Your task to perform on an android device: Open Google Chrome and click the shortcut for Amazon.com Image 0: 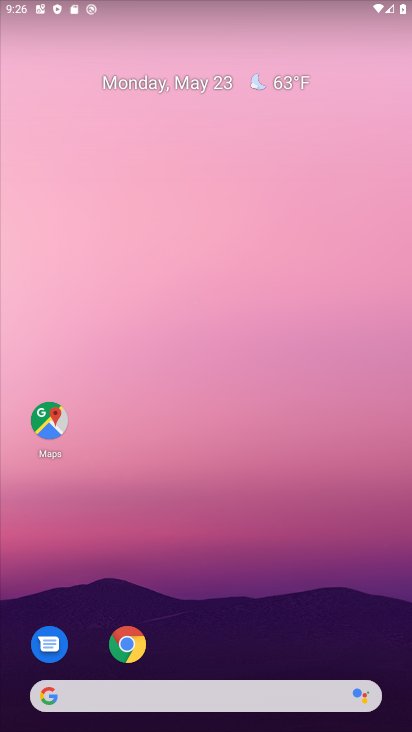
Step 0: click (125, 640)
Your task to perform on an android device: Open Google Chrome and click the shortcut for Amazon.com Image 1: 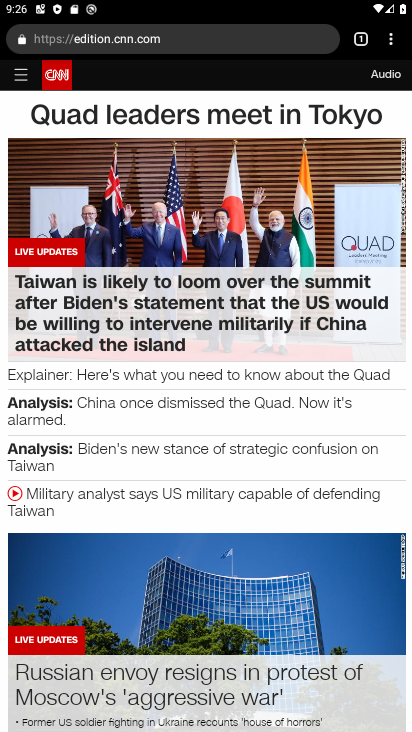
Step 1: click (358, 31)
Your task to perform on an android device: Open Google Chrome and click the shortcut for Amazon.com Image 2: 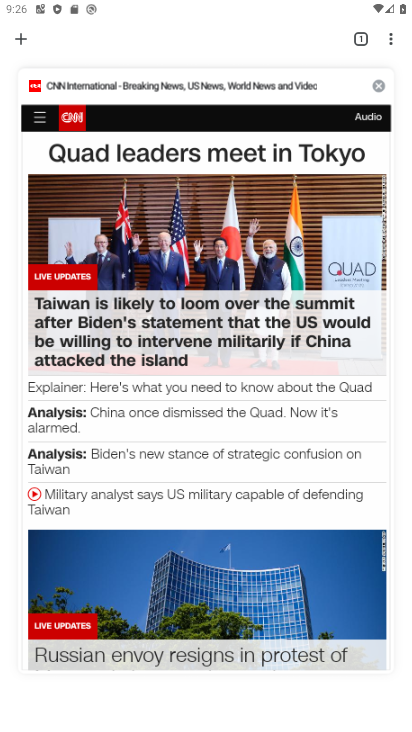
Step 2: click (376, 79)
Your task to perform on an android device: Open Google Chrome and click the shortcut for Amazon.com Image 3: 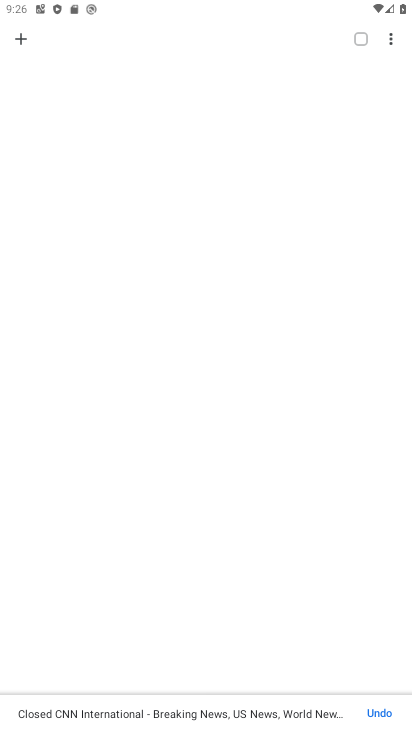
Step 3: click (14, 33)
Your task to perform on an android device: Open Google Chrome and click the shortcut for Amazon.com Image 4: 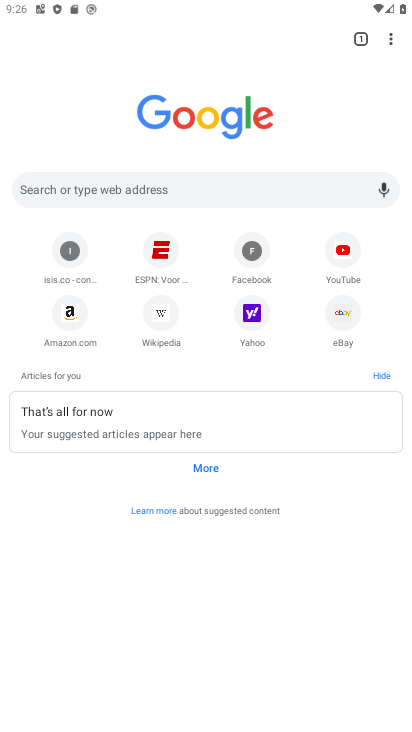
Step 4: click (72, 309)
Your task to perform on an android device: Open Google Chrome and click the shortcut for Amazon.com Image 5: 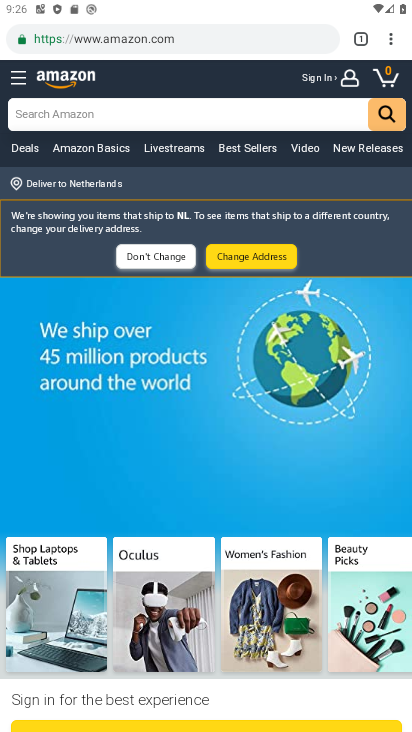
Step 5: task complete